Your task to perform on an android device: Open the calendar app, open the side menu, and click the "Day" option Image 0: 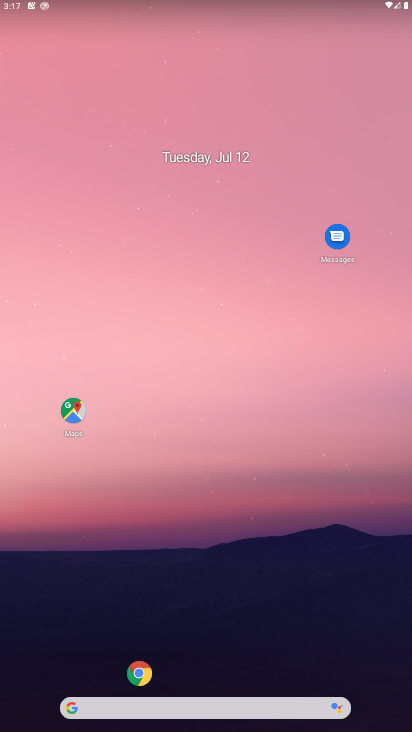
Step 0: drag from (38, 689) to (210, 201)
Your task to perform on an android device: Open the calendar app, open the side menu, and click the "Day" option Image 1: 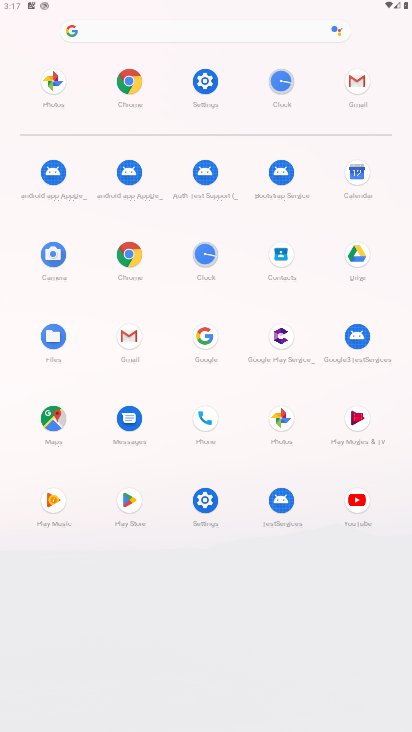
Step 1: drag from (41, 679) to (107, 484)
Your task to perform on an android device: Open the calendar app, open the side menu, and click the "Day" option Image 2: 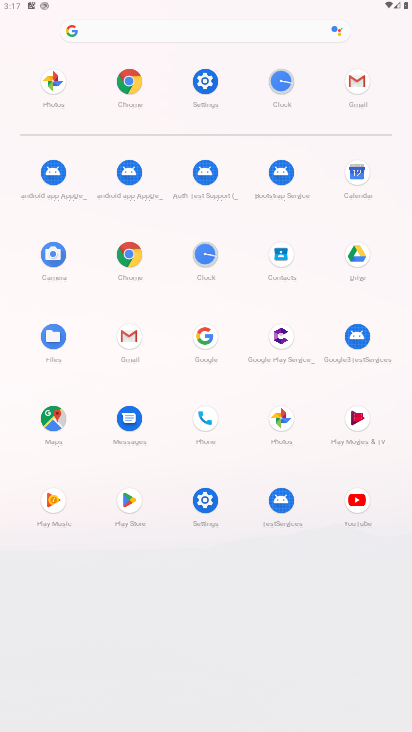
Step 2: click (354, 171)
Your task to perform on an android device: Open the calendar app, open the side menu, and click the "Day" option Image 3: 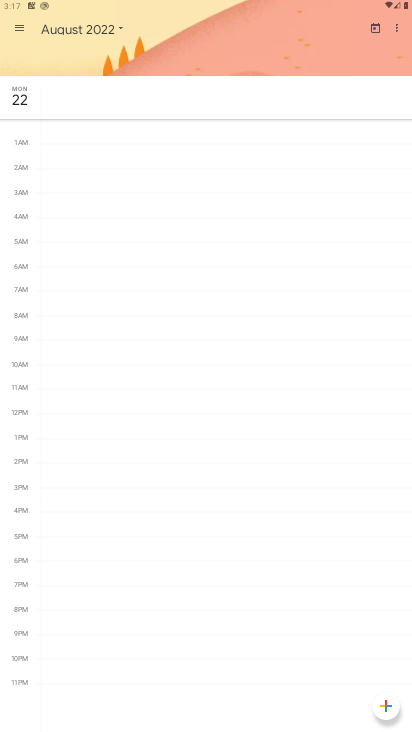
Step 3: click (20, 23)
Your task to perform on an android device: Open the calendar app, open the side menu, and click the "Day" option Image 4: 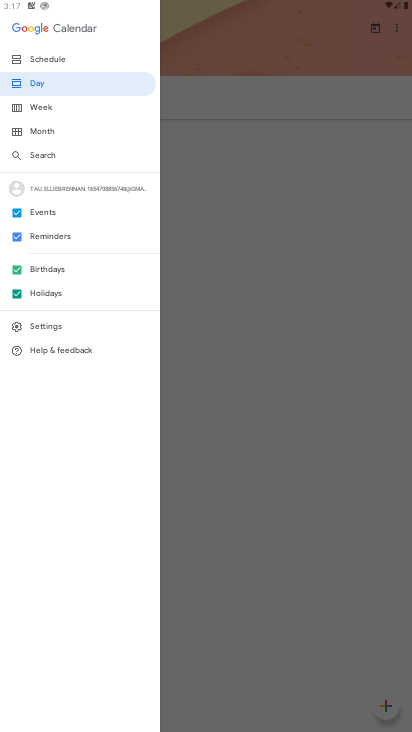
Step 4: click (55, 79)
Your task to perform on an android device: Open the calendar app, open the side menu, and click the "Day" option Image 5: 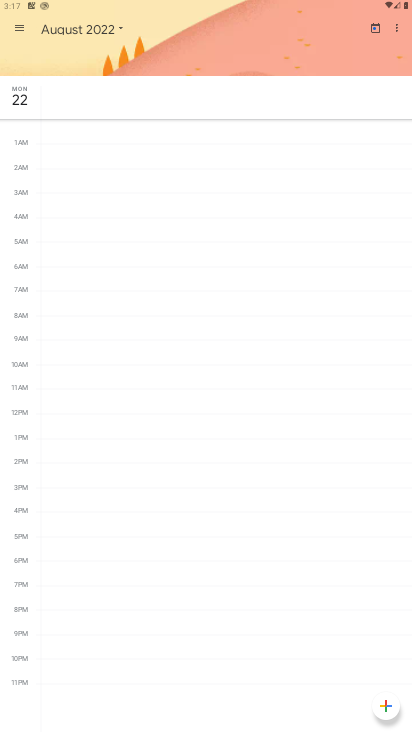
Step 5: task complete